Your task to perform on an android device: check android version Image 0: 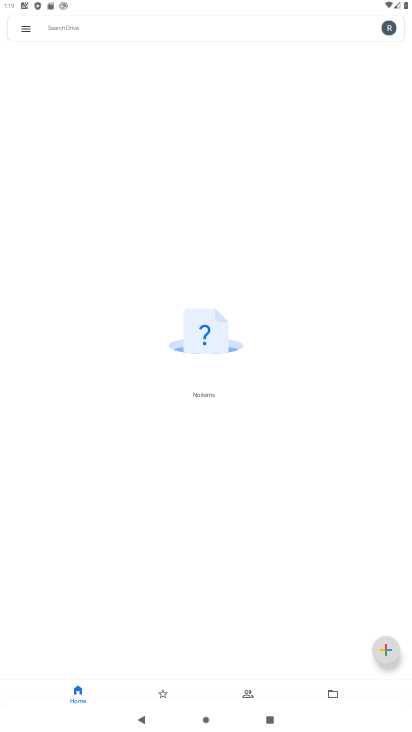
Step 0: press home button
Your task to perform on an android device: check android version Image 1: 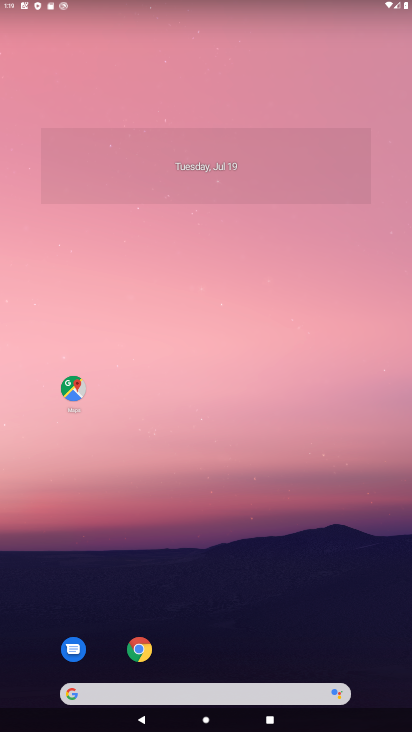
Step 1: drag from (238, 557) to (252, 62)
Your task to perform on an android device: check android version Image 2: 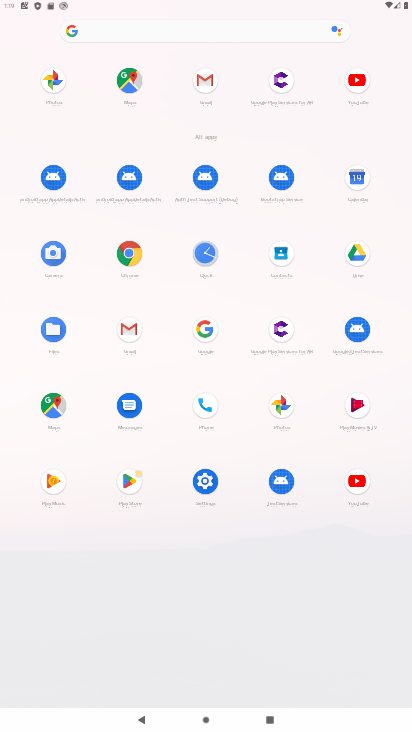
Step 2: click (202, 478)
Your task to perform on an android device: check android version Image 3: 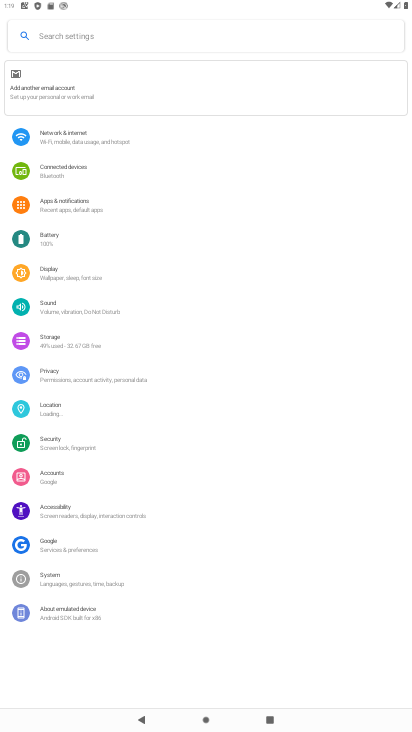
Step 3: click (74, 618)
Your task to perform on an android device: check android version Image 4: 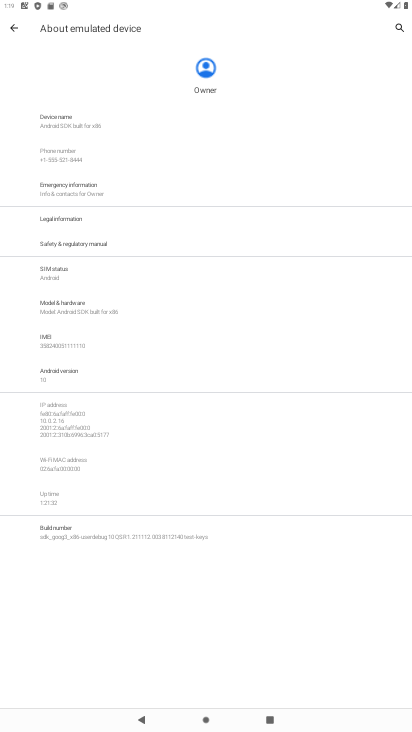
Step 4: task complete